Your task to perform on an android device: When is my next appointment? Image 0: 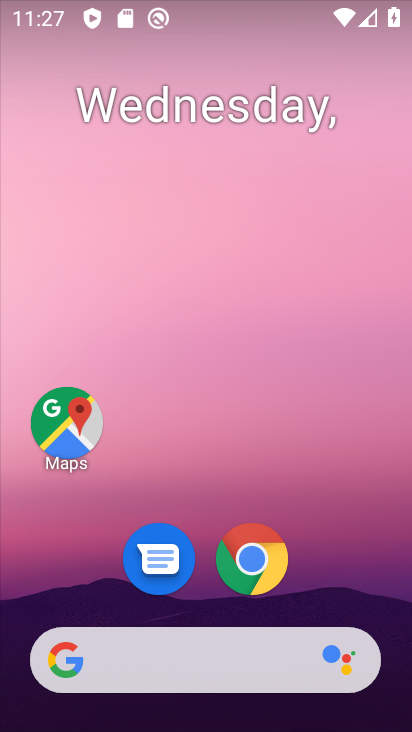
Step 0: drag from (274, 279) to (134, 40)
Your task to perform on an android device: When is my next appointment? Image 1: 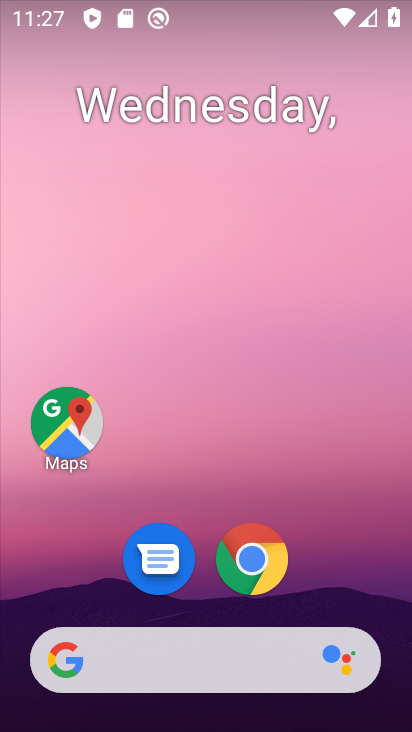
Step 1: drag from (343, 543) to (12, 266)
Your task to perform on an android device: When is my next appointment? Image 2: 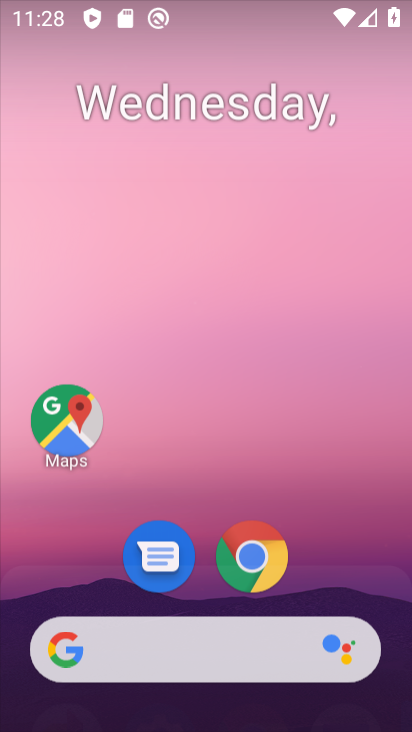
Step 2: click (56, 464)
Your task to perform on an android device: When is my next appointment? Image 3: 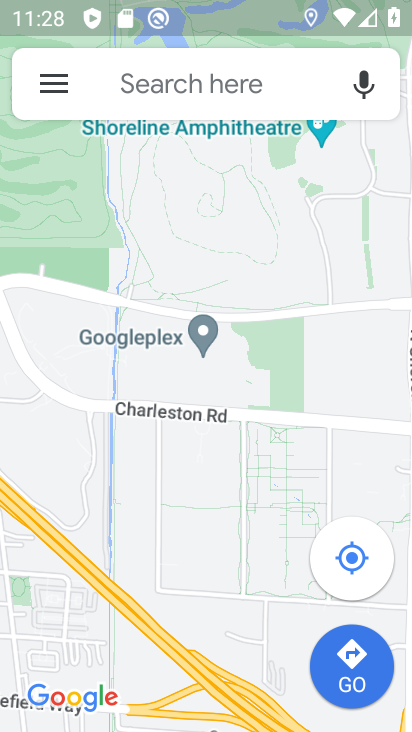
Step 3: press home button
Your task to perform on an android device: When is my next appointment? Image 4: 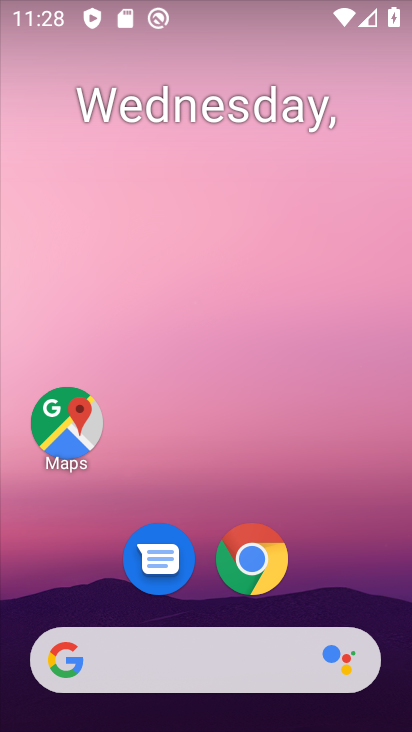
Step 4: drag from (361, 408) to (2, 401)
Your task to perform on an android device: When is my next appointment? Image 5: 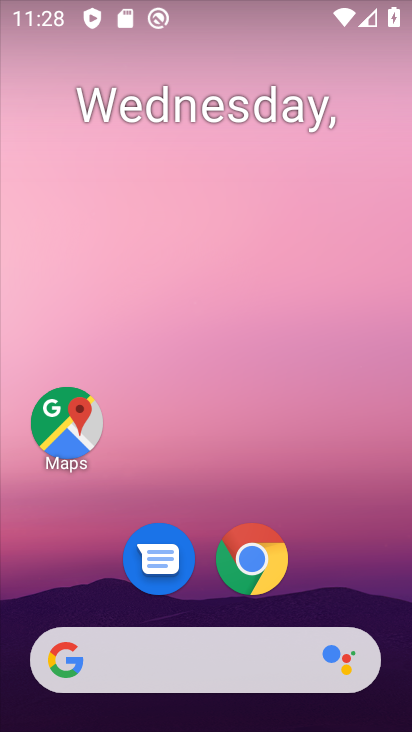
Step 5: drag from (310, 464) to (292, 0)
Your task to perform on an android device: When is my next appointment? Image 6: 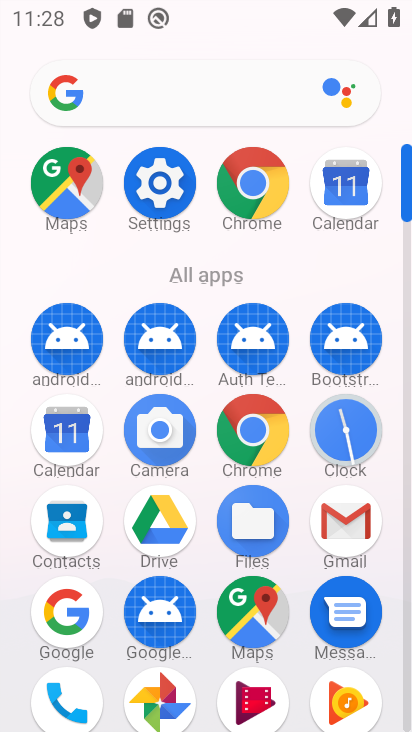
Step 6: click (356, 194)
Your task to perform on an android device: When is my next appointment? Image 7: 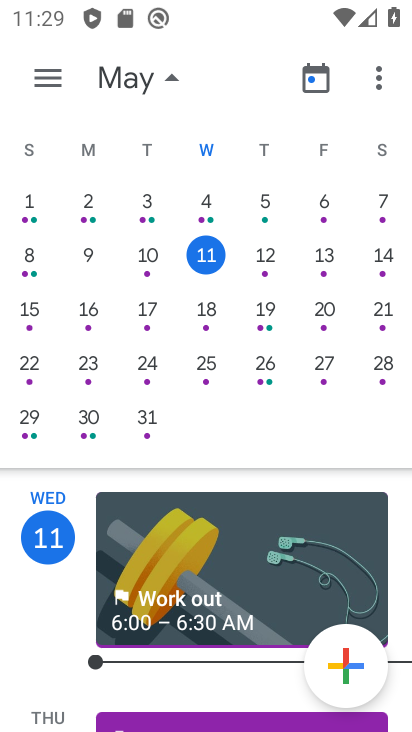
Step 7: click (258, 259)
Your task to perform on an android device: When is my next appointment? Image 8: 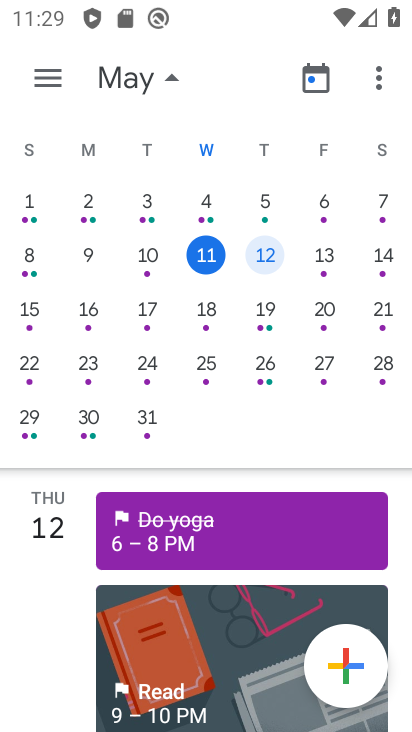
Step 8: task complete